Your task to perform on an android device: Clear the cart on target.com. Search for "razer blade" on target.com, select the first entry, add it to the cart, then select checkout. Image 0: 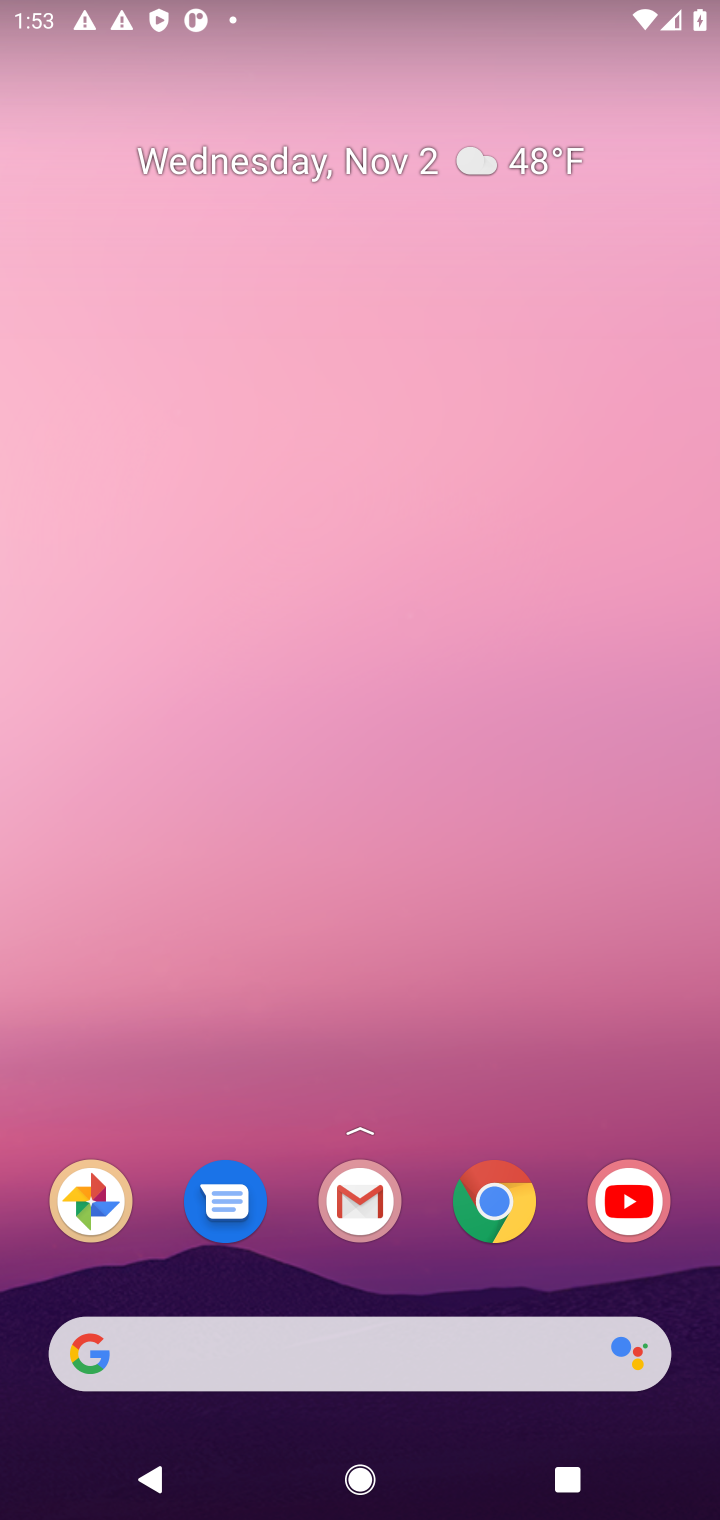
Step 0: click (511, 1200)
Your task to perform on an android device: Clear the cart on target.com. Search for "razer blade" on target.com, select the first entry, add it to the cart, then select checkout. Image 1: 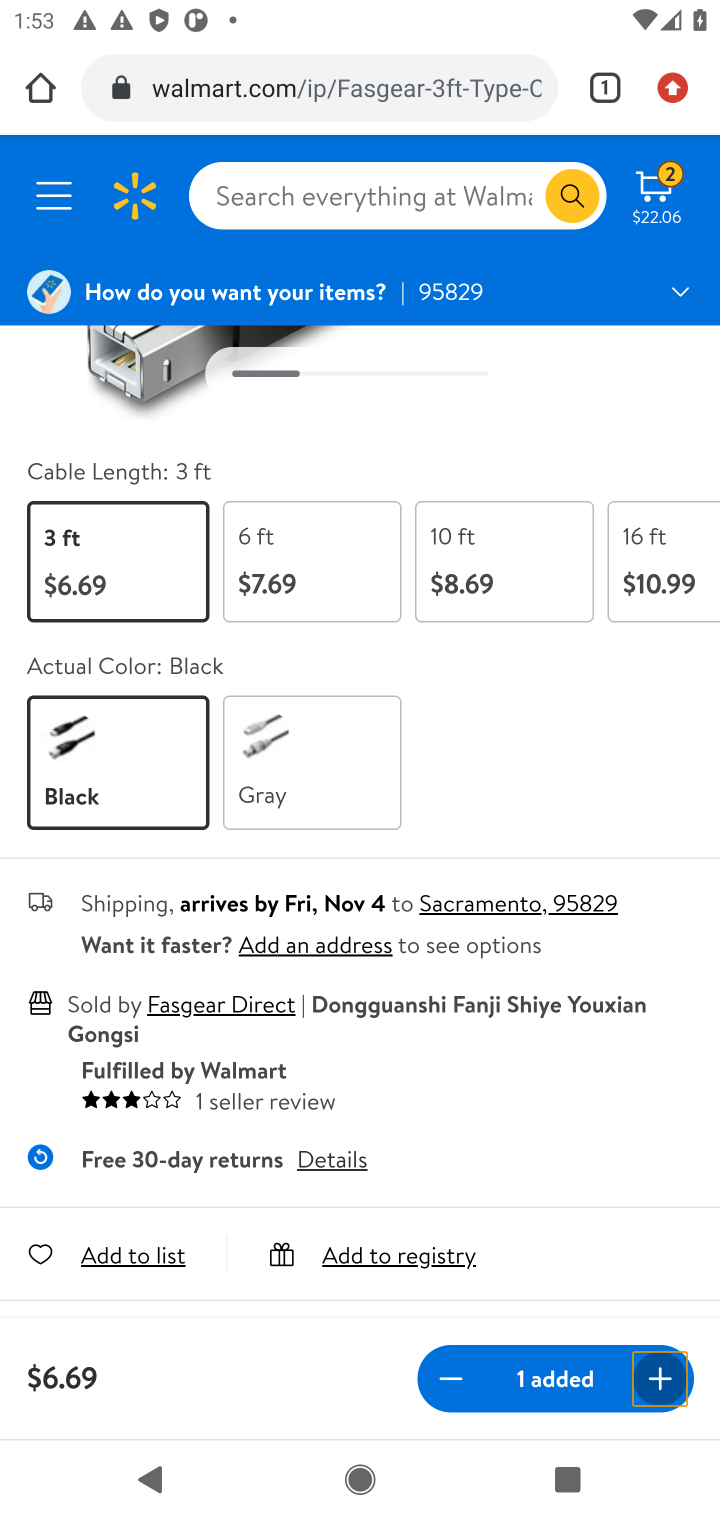
Step 1: click (383, 72)
Your task to perform on an android device: Clear the cart on target.com. Search for "razer blade" on target.com, select the first entry, add it to the cart, then select checkout. Image 2: 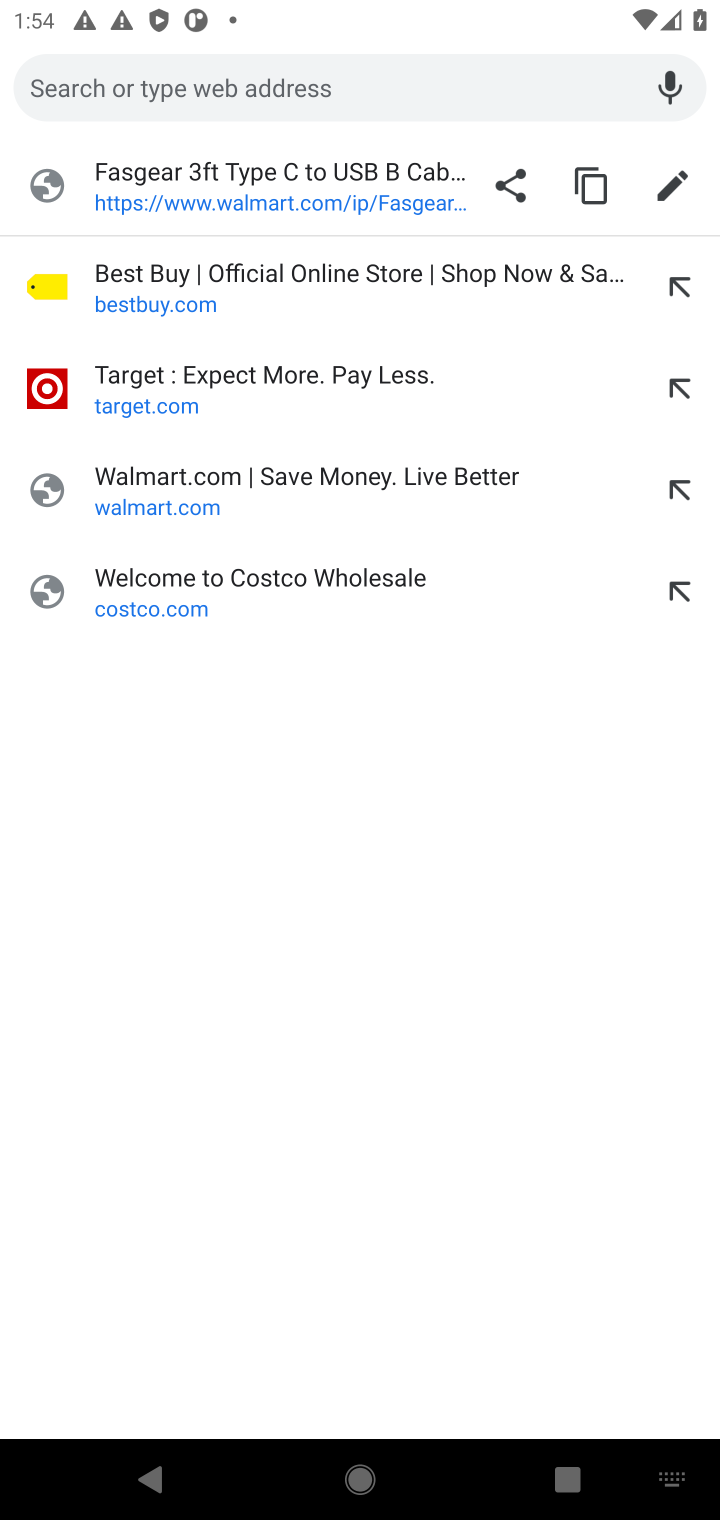
Step 2: click (311, 369)
Your task to perform on an android device: Clear the cart on target.com. Search for "razer blade" on target.com, select the first entry, add it to the cart, then select checkout. Image 3: 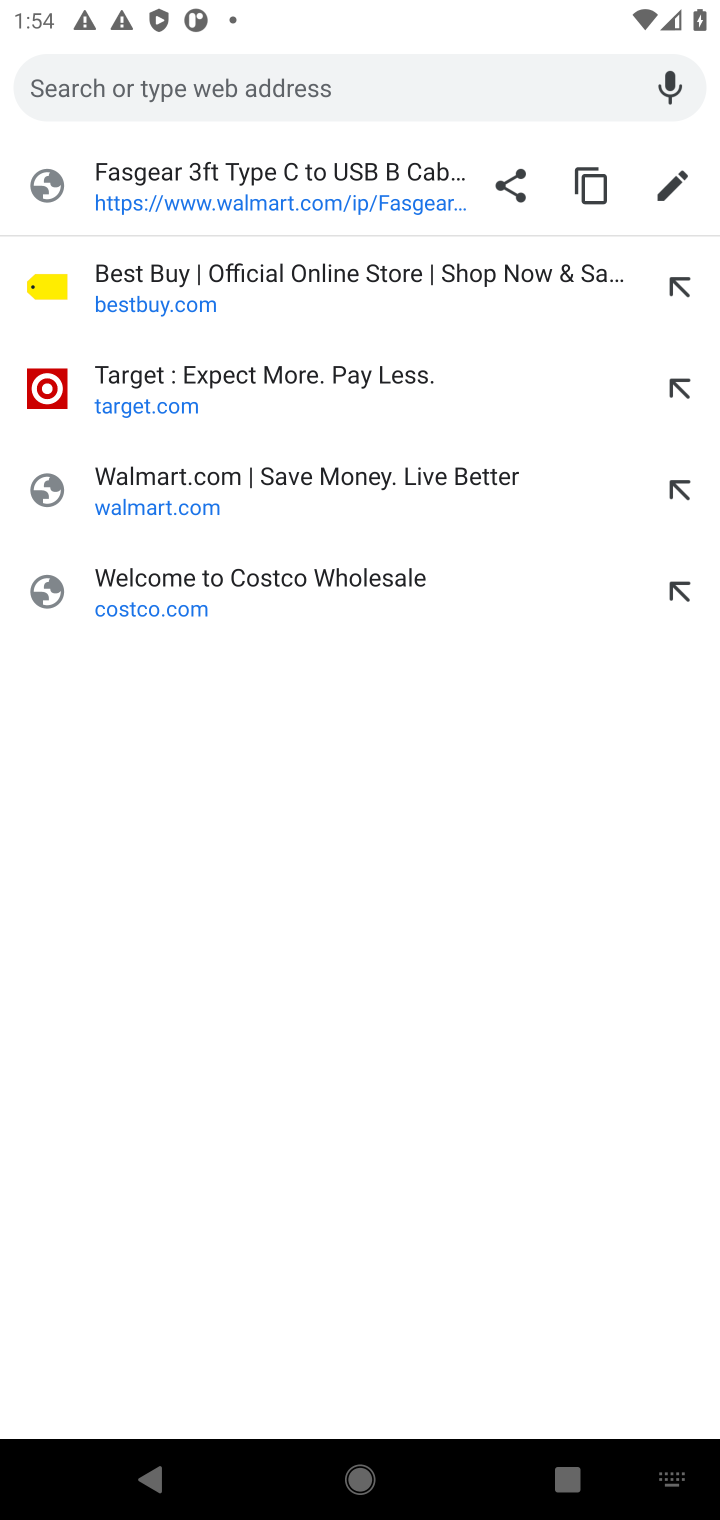
Step 3: click (167, 364)
Your task to perform on an android device: Clear the cart on target.com. Search for "razer blade" on target.com, select the first entry, add it to the cart, then select checkout. Image 4: 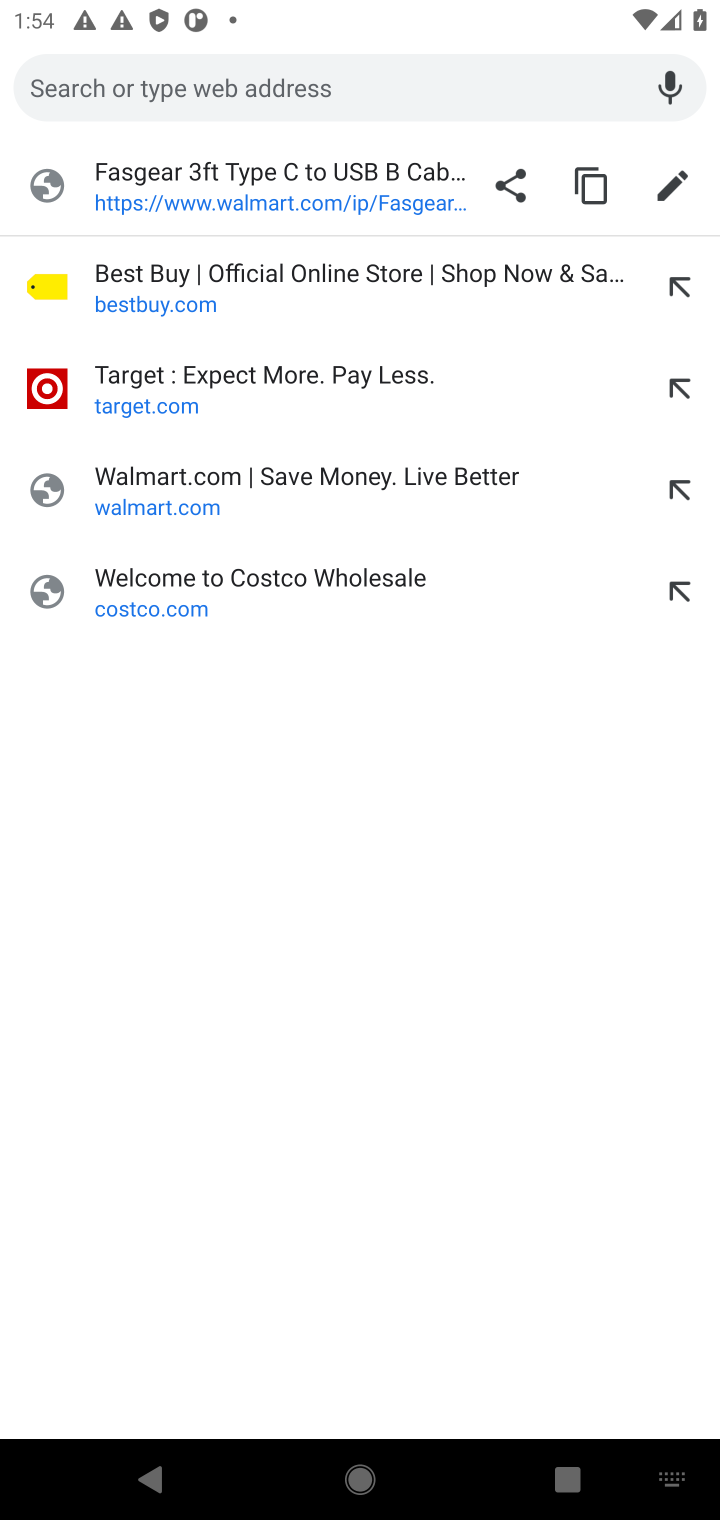
Step 4: click (211, 378)
Your task to perform on an android device: Clear the cart on target.com. Search for "razer blade" on target.com, select the first entry, add it to the cart, then select checkout. Image 5: 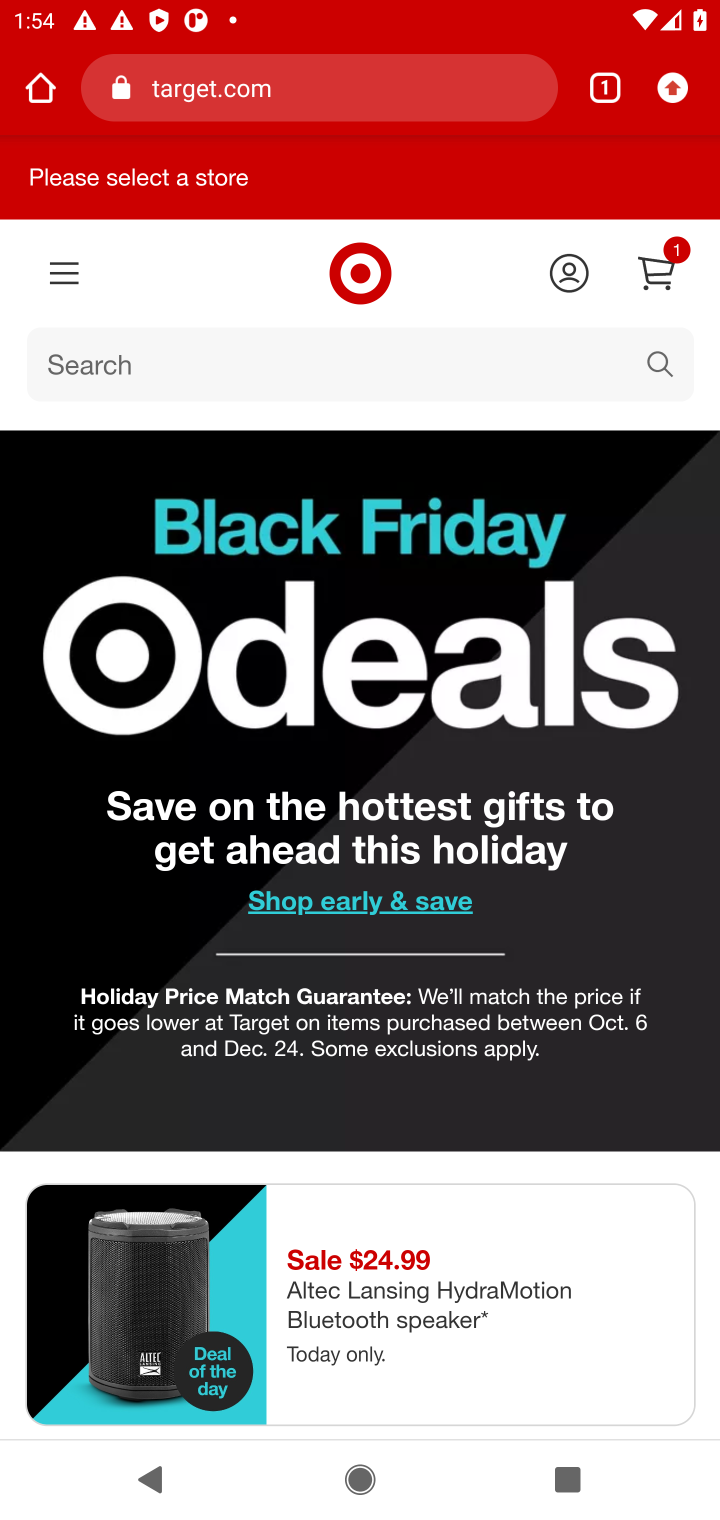
Step 5: click (662, 265)
Your task to perform on an android device: Clear the cart on target.com. Search for "razer blade" on target.com, select the first entry, add it to the cart, then select checkout. Image 6: 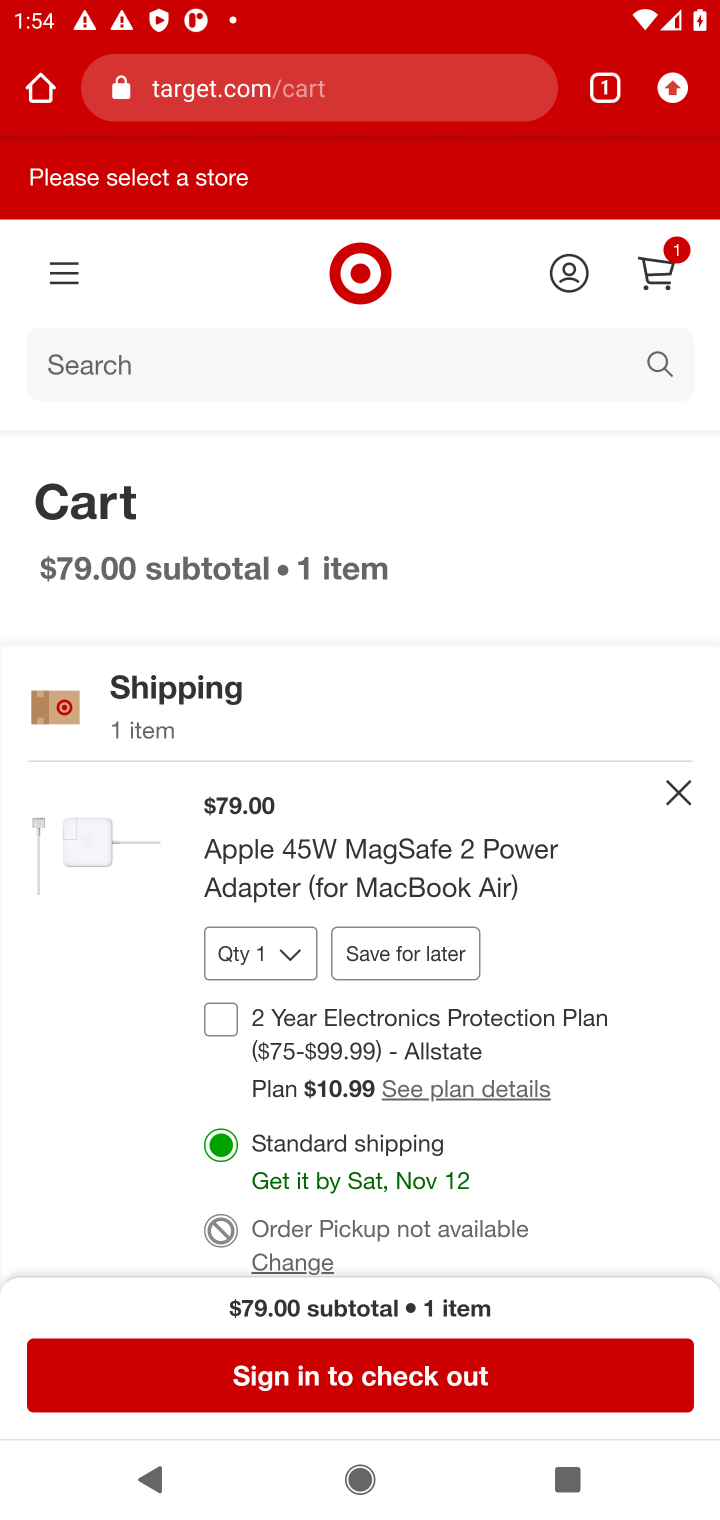
Step 6: click (686, 787)
Your task to perform on an android device: Clear the cart on target.com. Search for "razer blade" on target.com, select the first entry, add it to the cart, then select checkout. Image 7: 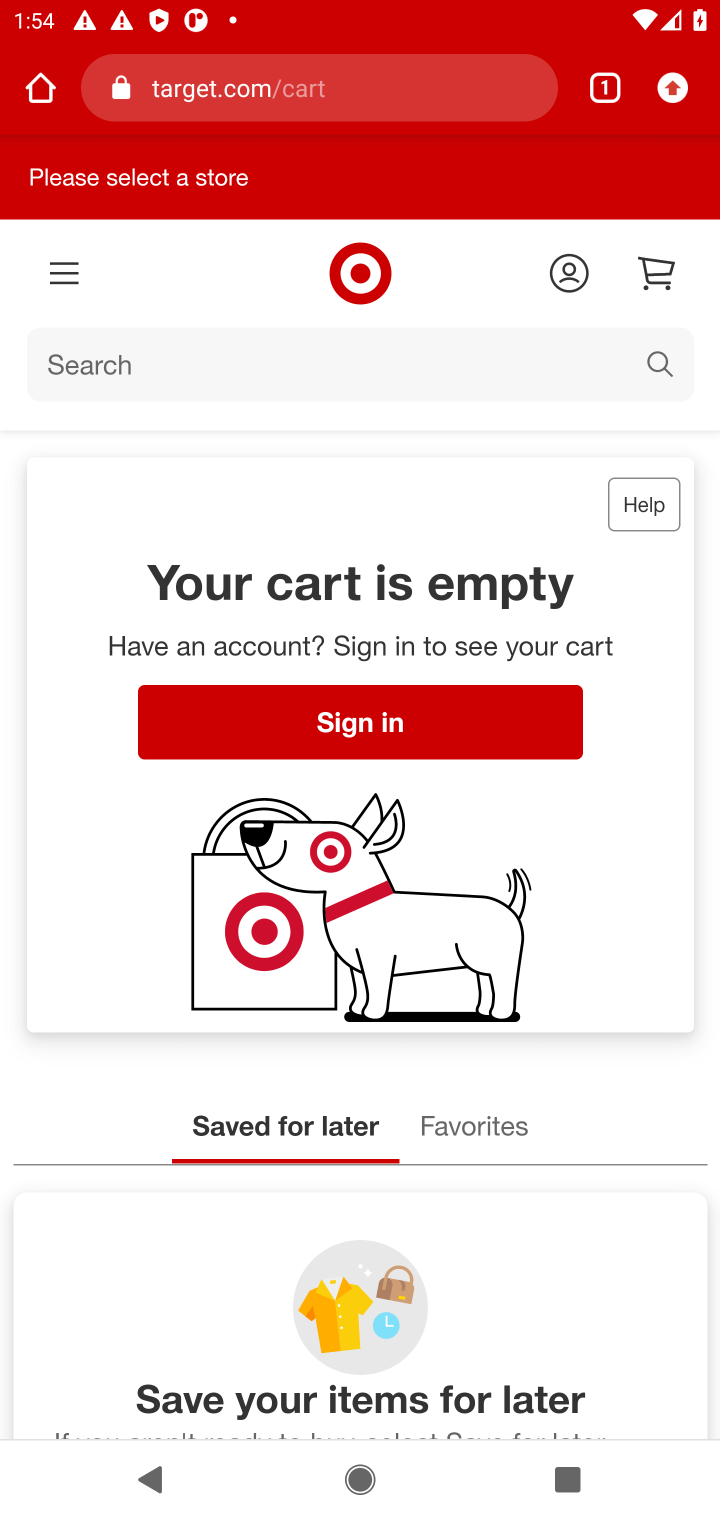
Step 7: click (653, 366)
Your task to perform on an android device: Clear the cart on target.com. Search for "razer blade" on target.com, select the first entry, add it to the cart, then select checkout. Image 8: 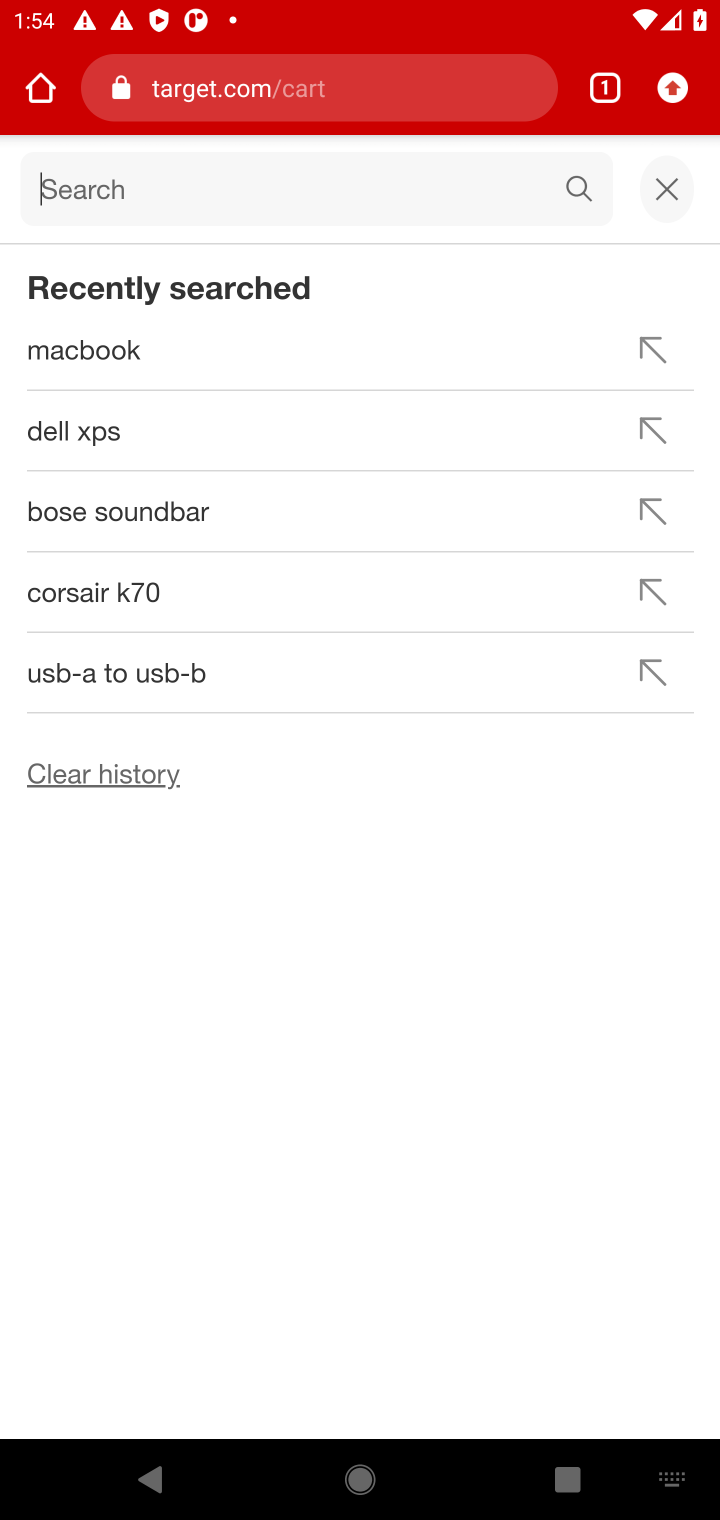
Step 8: type "razer blade"
Your task to perform on an android device: Clear the cart on target.com. Search for "razer blade" on target.com, select the first entry, add it to the cart, then select checkout. Image 9: 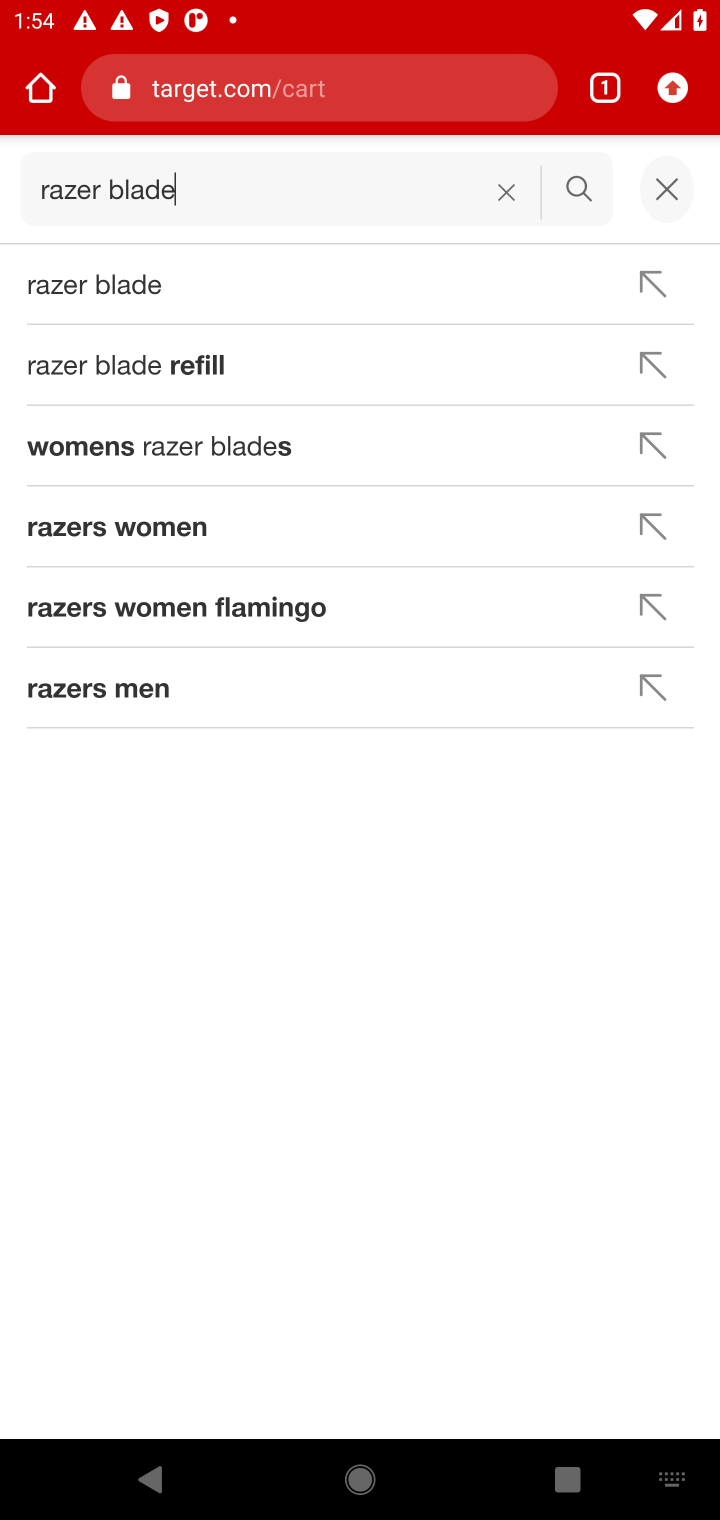
Step 9: click (56, 281)
Your task to perform on an android device: Clear the cart on target.com. Search for "razer blade" on target.com, select the first entry, add it to the cart, then select checkout. Image 10: 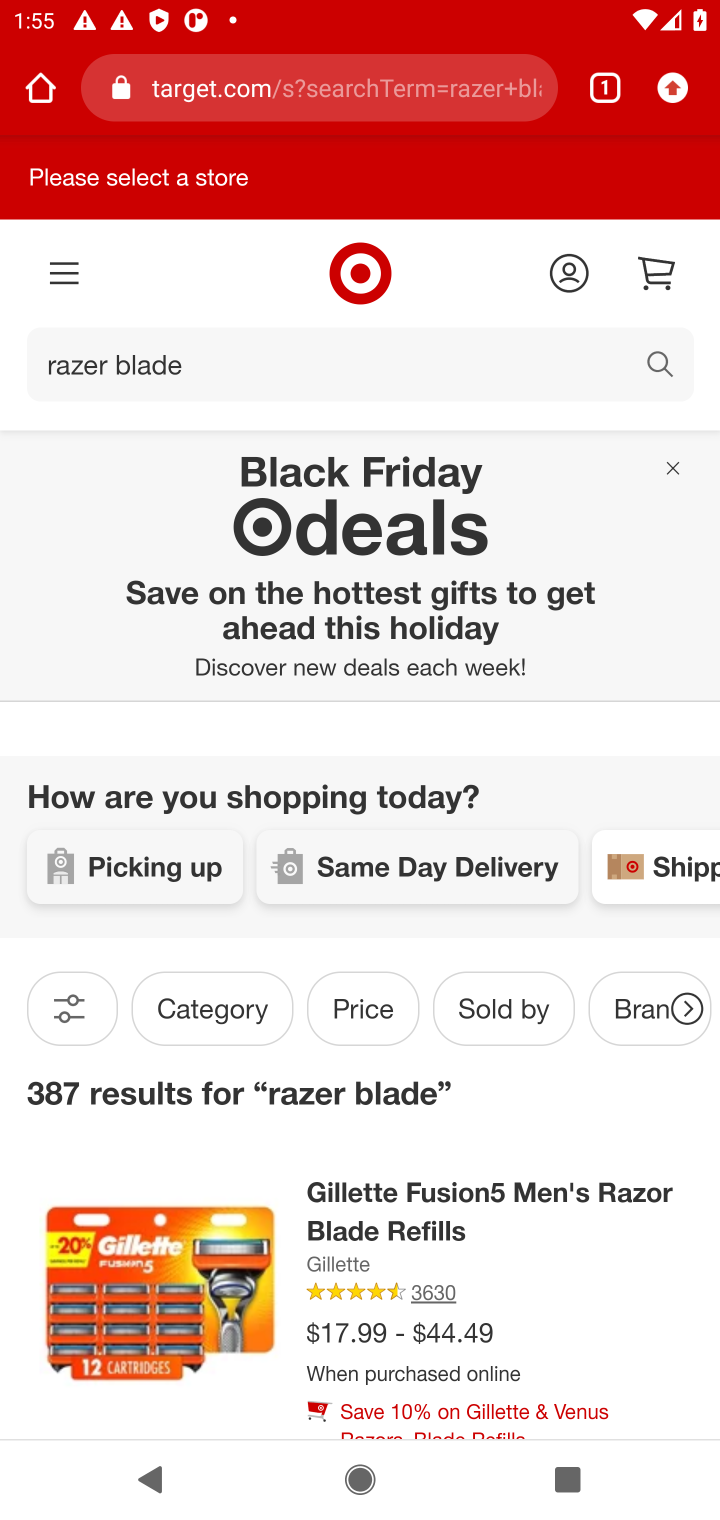
Step 10: click (70, 1254)
Your task to perform on an android device: Clear the cart on target.com. Search for "razer blade" on target.com, select the first entry, add it to the cart, then select checkout. Image 11: 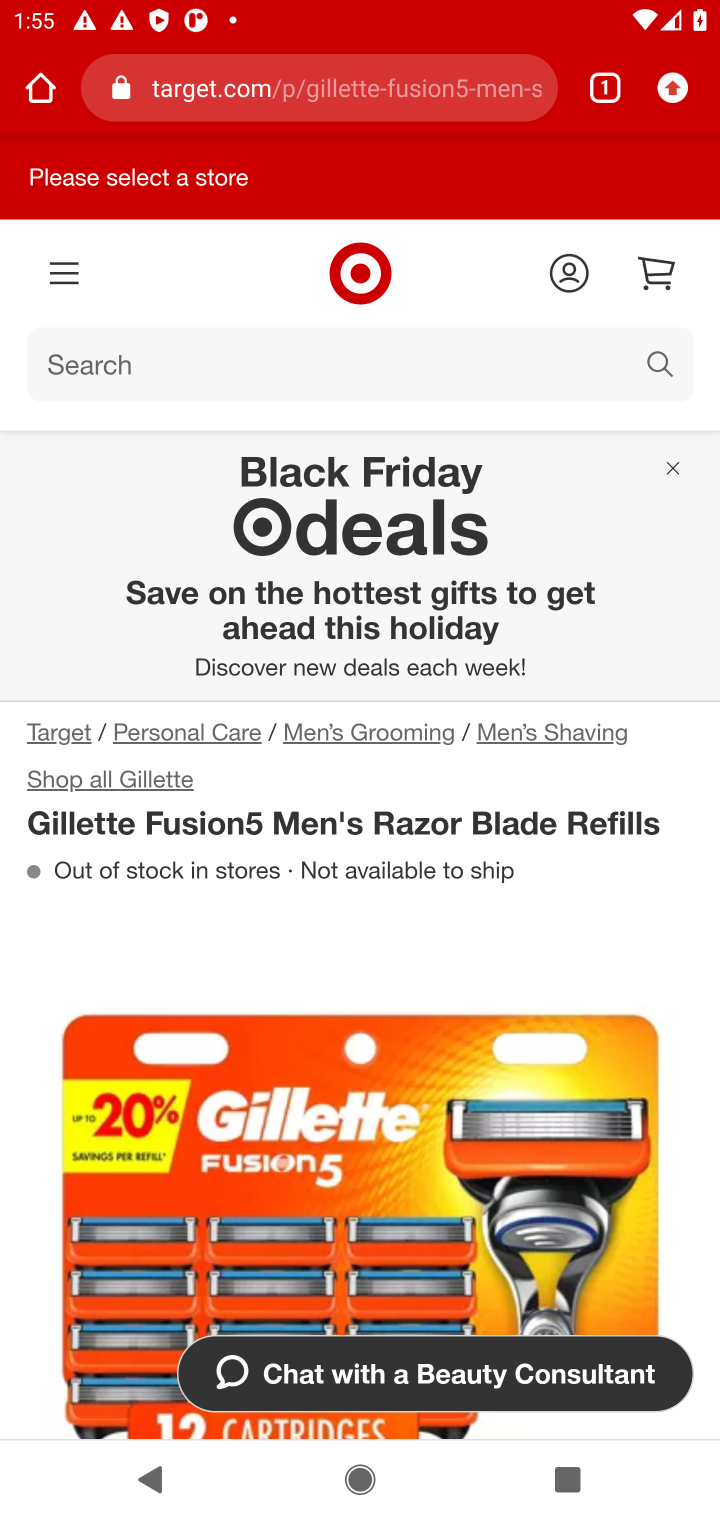
Step 11: drag from (474, 725) to (575, 555)
Your task to perform on an android device: Clear the cart on target.com. Search for "razer blade" on target.com, select the first entry, add it to the cart, then select checkout. Image 12: 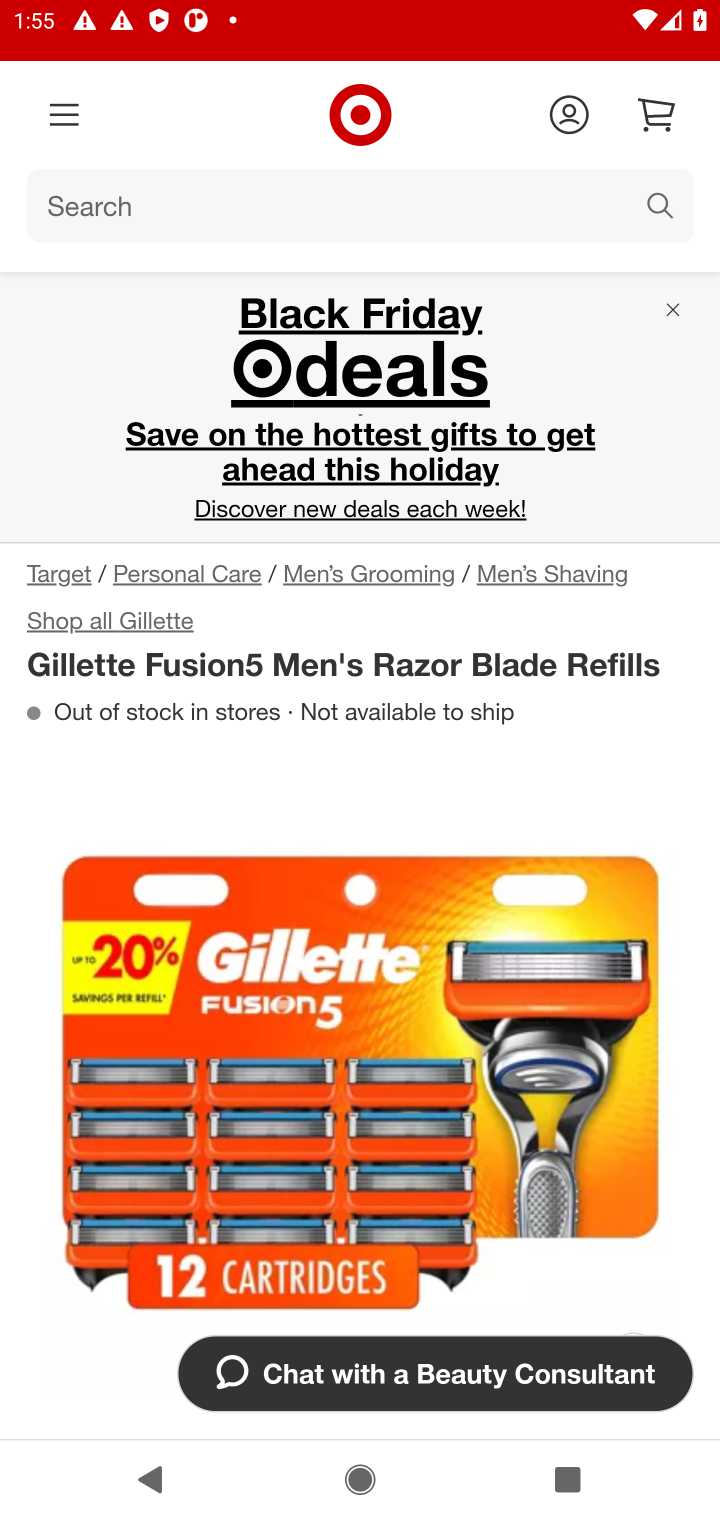
Step 12: drag from (340, 1244) to (408, 924)
Your task to perform on an android device: Clear the cart on target.com. Search for "razer blade" on target.com, select the first entry, add it to the cart, then select checkout. Image 13: 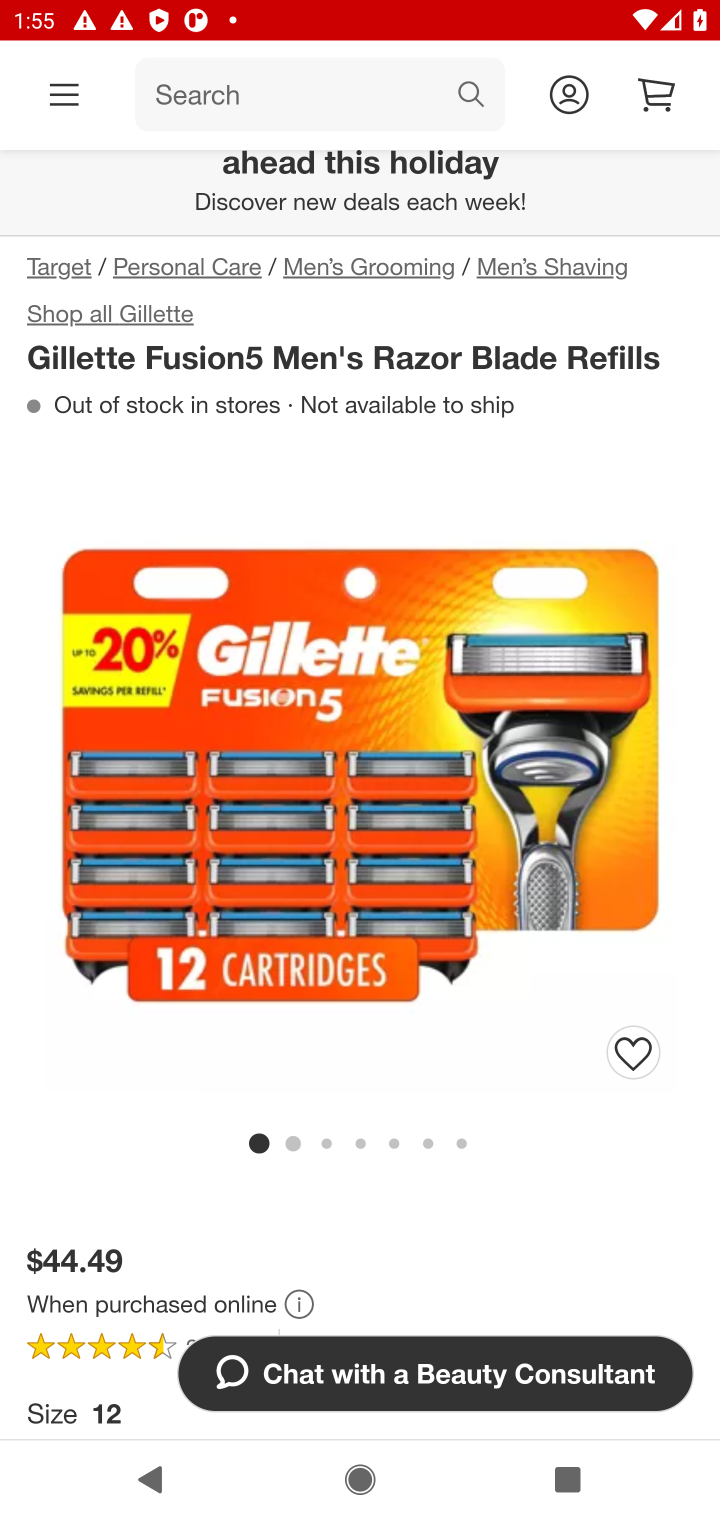
Step 13: drag from (398, 1080) to (517, 872)
Your task to perform on an android device: Clear the cart on target.com. Search for "razer blade" on target.com, select the first entry, add it to the cart, then select checkout. Image 14: 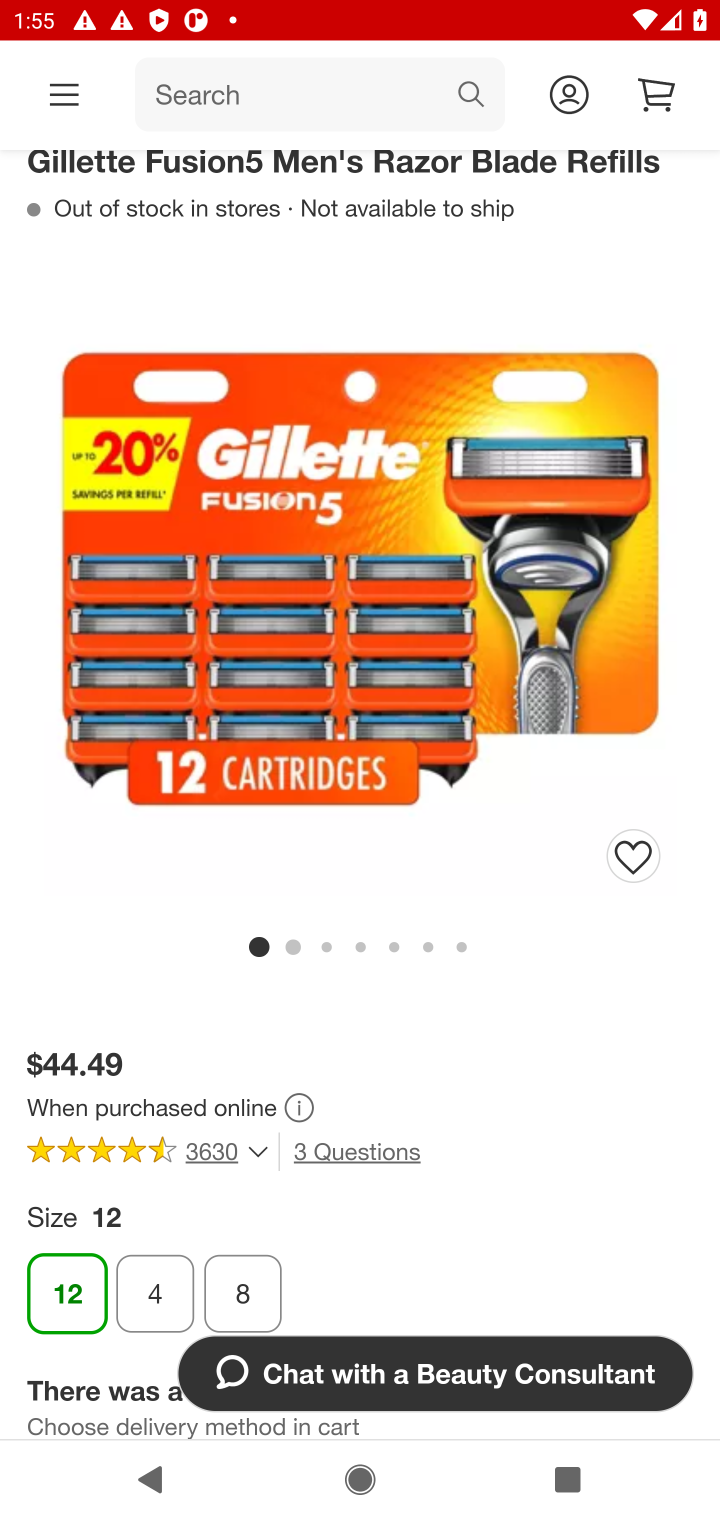
Step 14: drag from (569, 1277) to (575, 788)
Your task to perform on an android device: Clear the cart on target.com. Search for "razer blade" on target.com, select the first entry, add it to the cart, then select checkout. Image 15: 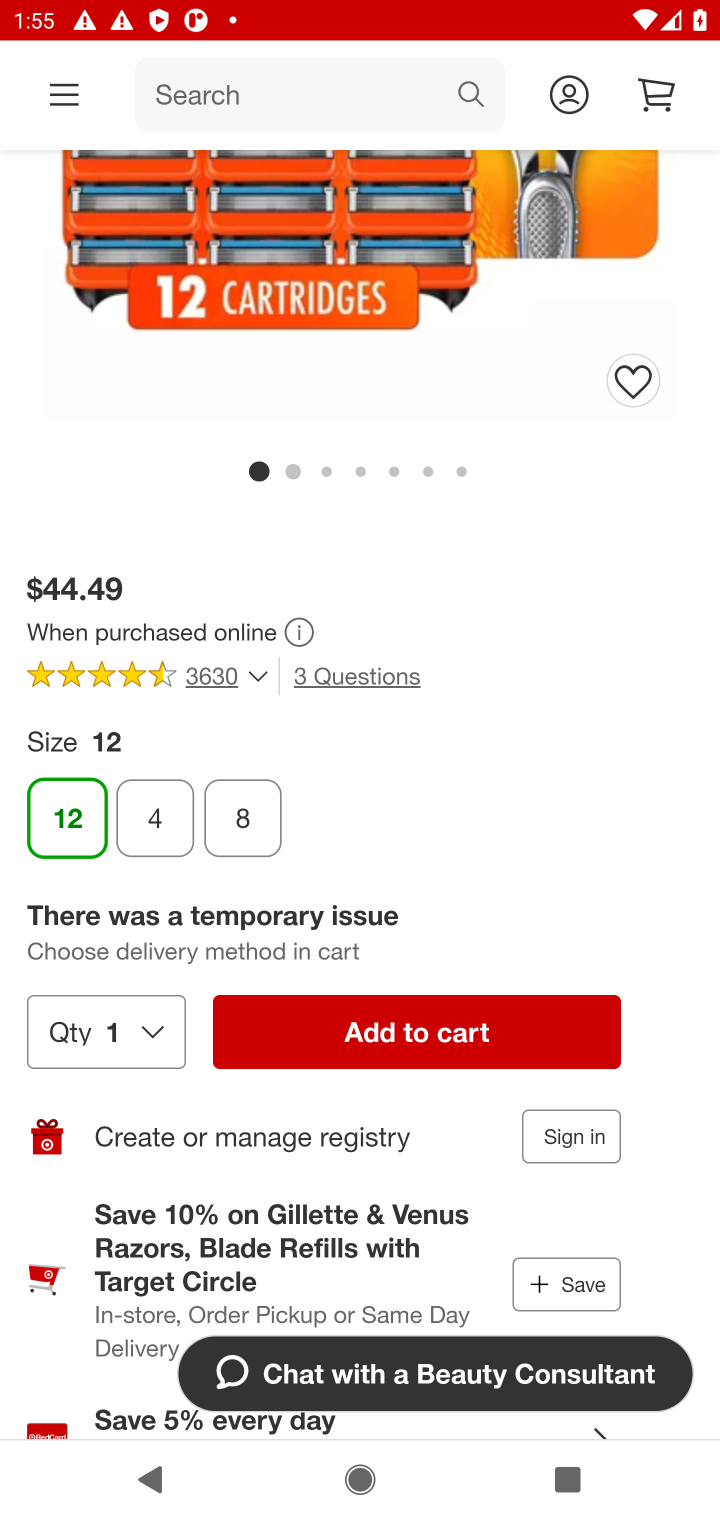
Step 15: click (384, 1035)
Your task to perform on an android device: Clear the cart on target.com. Search for "razer blade" on target.com, select the first entry, add it to the cart, then select checkout. Image 16: 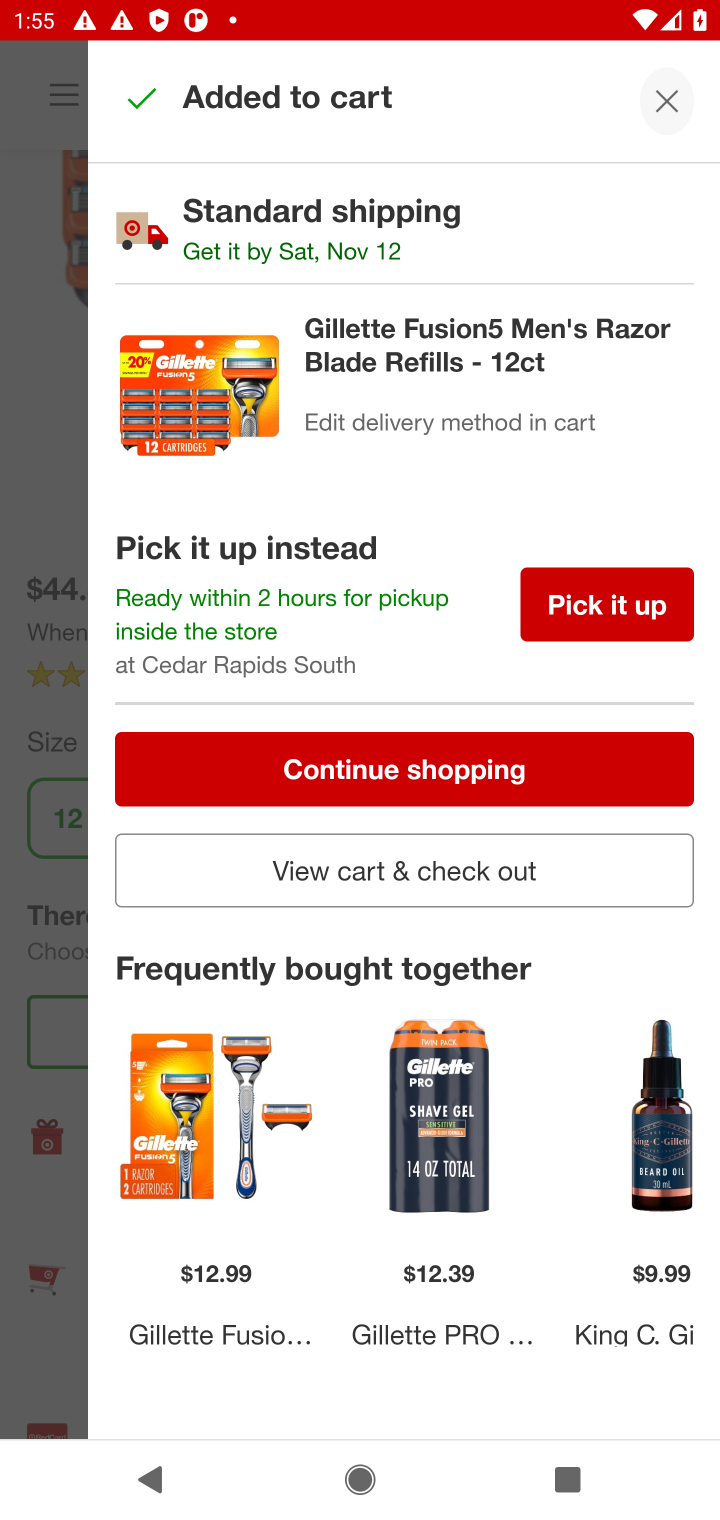
Step 16: click (664, 98)
Your task to perform on an android device: Clear the cart on target.com. Search for "razer blade" on target.com, select the first entry, add it to the cart, then select checkout. Image 17: 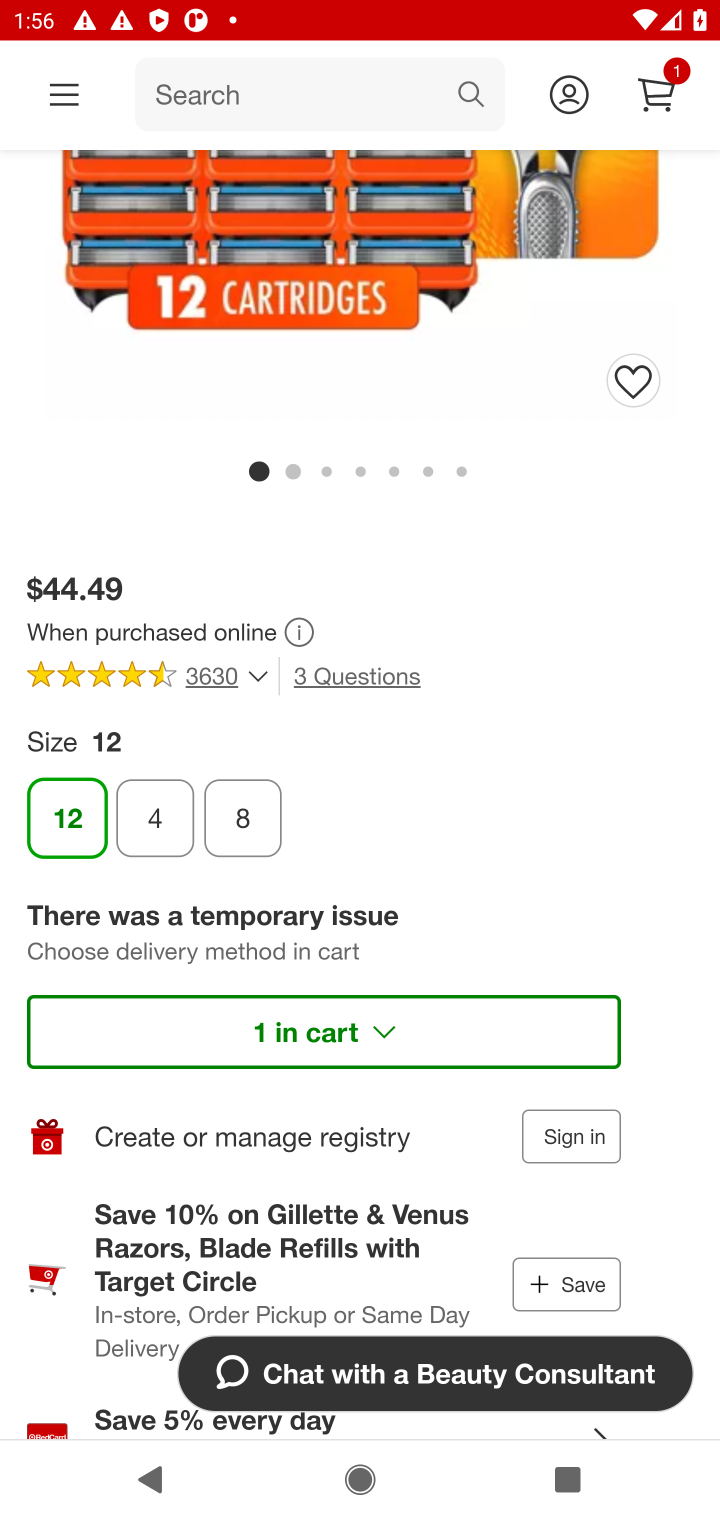
Step 17: click (652, 107)
Your task to perform on an android device: Clear the cart on target.com. Search for "razer blade" on target.com, select the first entry, add it to the cart, then select checkout. Image 18: 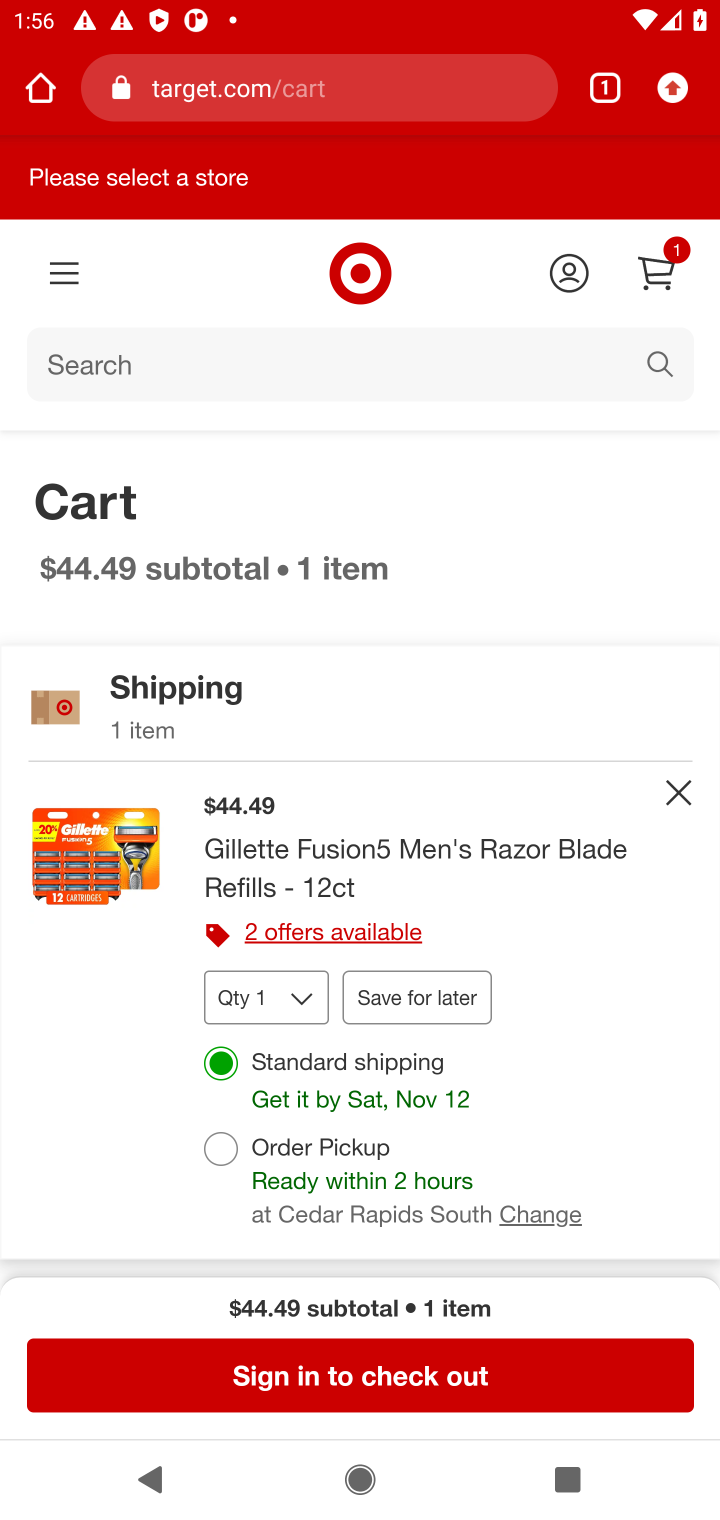
Step 18: click (448, 1364)
Your task to perform on an android device: Clear the cart on target.com. Search for "razer blade" on target.com, select the first entry, add it to the cart, then select checkout. Image 19: 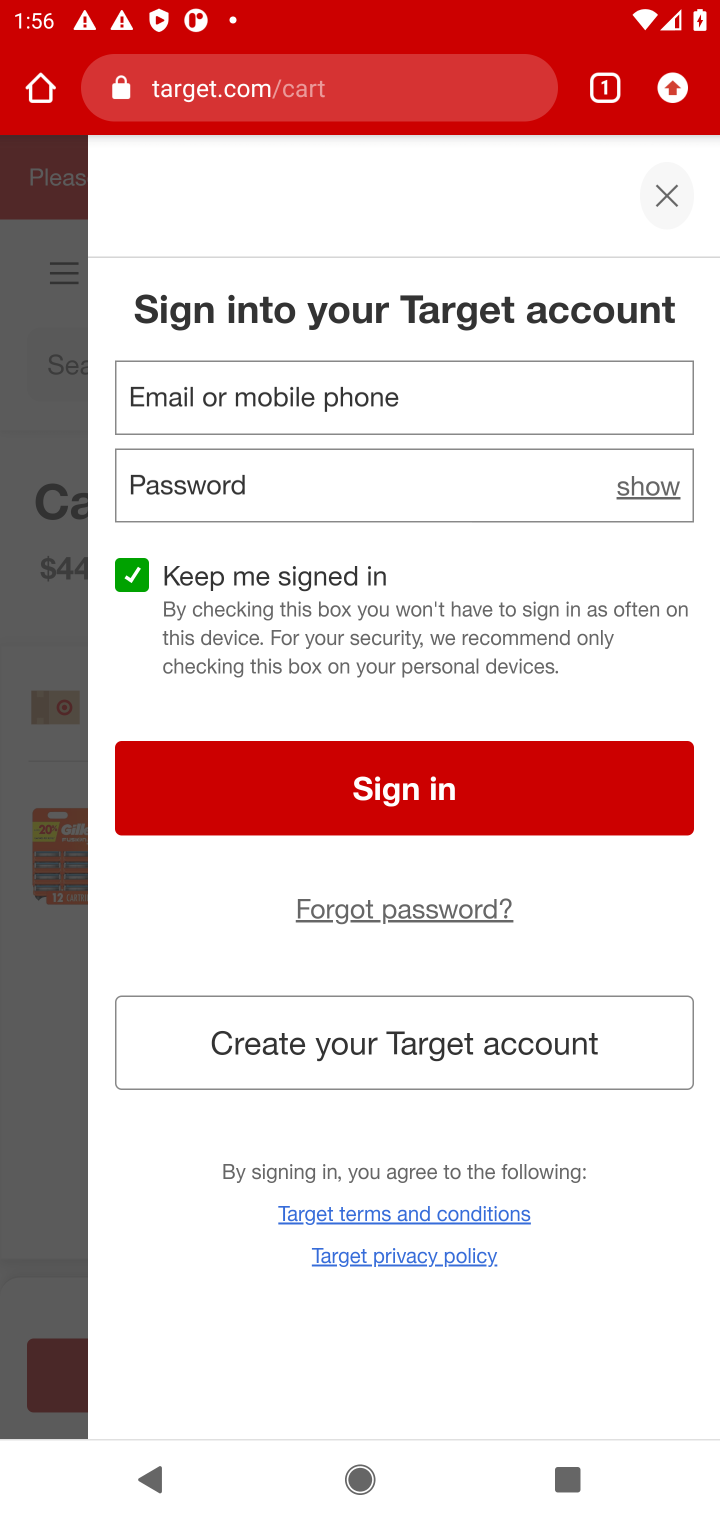
Step 19: task complete